Your task to perform on an android device: Open network settings Image 0: 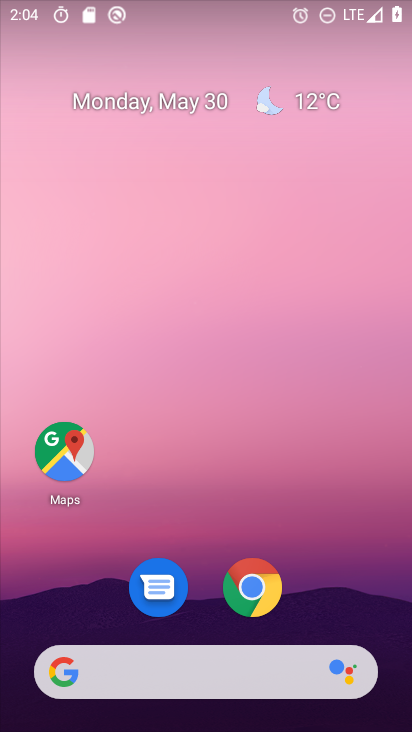
Step 0: drag from (303, 420) to (247, 51)
Your task to perform on an android device: Open network settings Image 1: 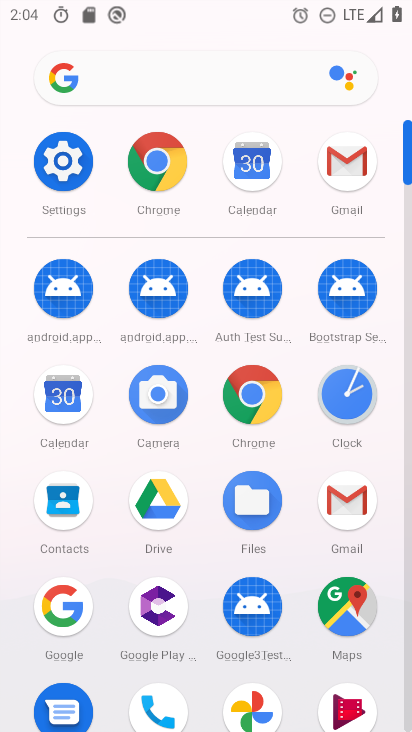
Step 1: click (76, 160)
Your task to perform on an android device: Open network settings Image 2: 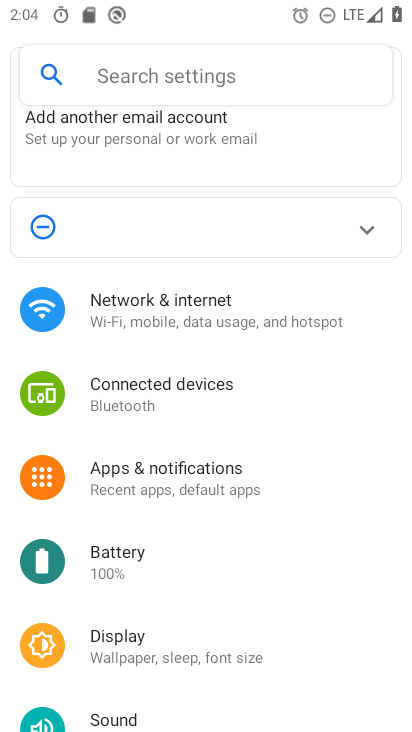
Step 2: click (159, 309)
Your task to perform on an android device: Open network settings Image 3: 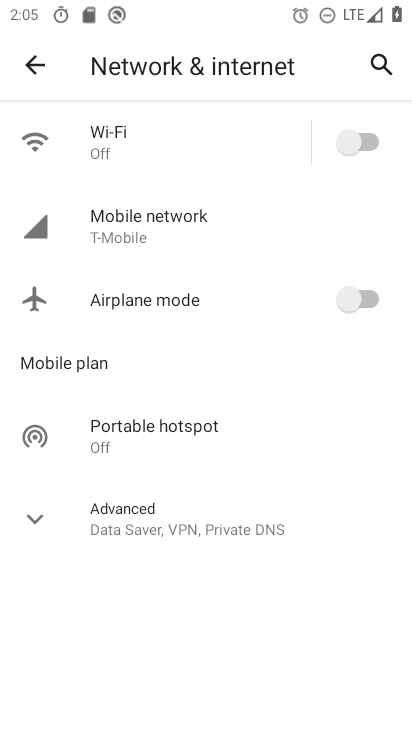
Step 3: click (185, 517)
Your task to perform on an android device: Open network settings Image 4: 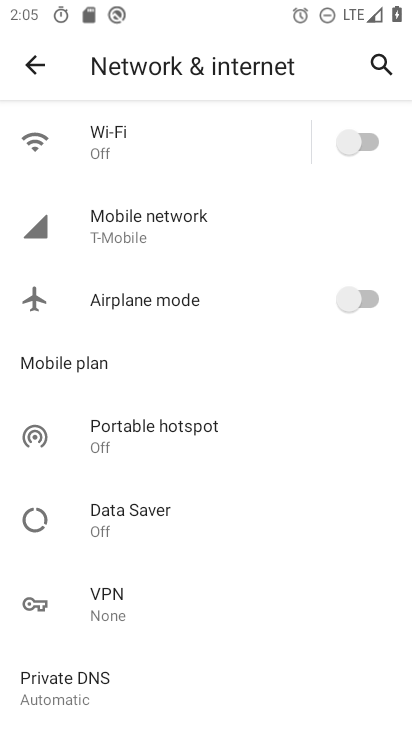
Step 4: task complete